Your task to perform on an android device: Open the stopwatch Image 0: 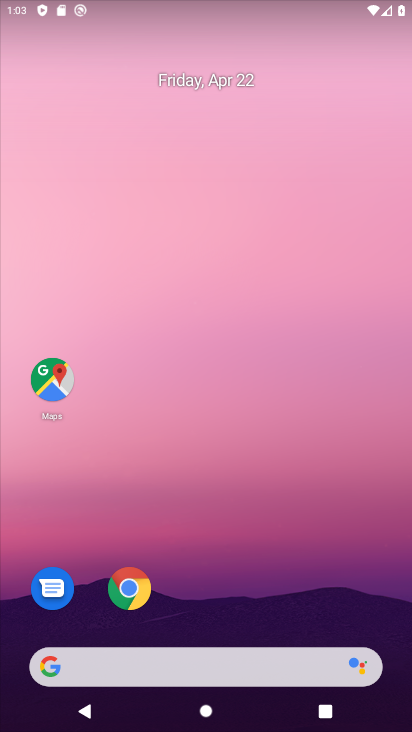
Step 0: drag from (99, 139) to (90, 17)
Your task to perform on an android device: Open the stopwatch Image 1: 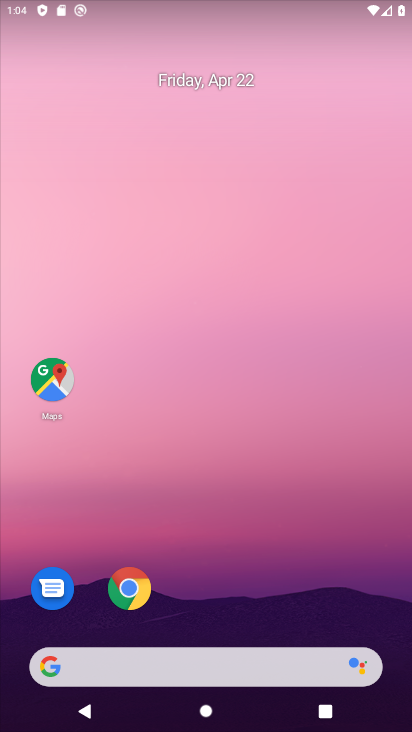
Step 1: drag from (251, 435) to (226, 53)
Your task to perform on an android device: Open the stopwatch Image 2: 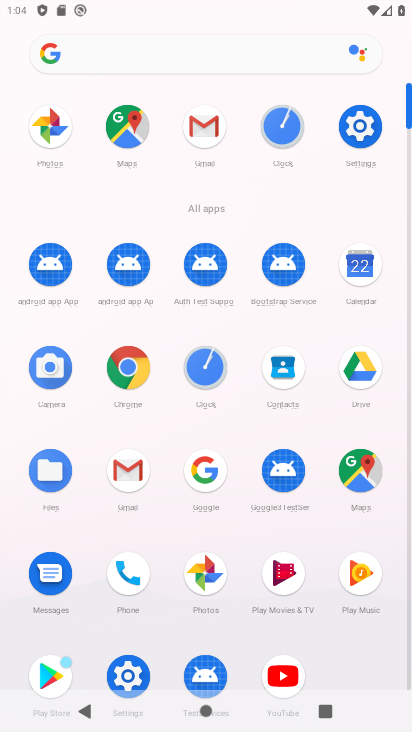
Step 2: click (197, 373)
Your task to perform on an android device: Open the stopwatch Image 3: 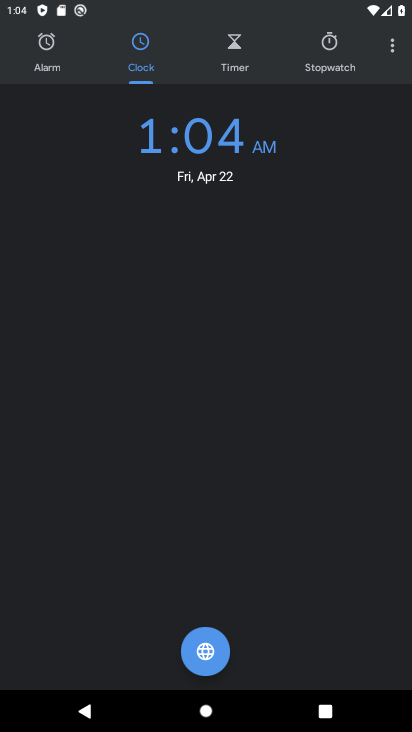
Step 3: click (334, 69)
Your task to perform on an android device: Open the stopwatch Image 4: 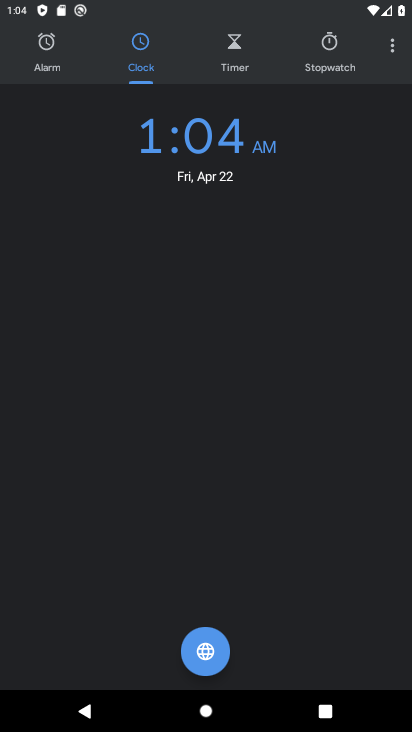
Step 4: click (323, 52)
Your task to perform on an android device: Open the stopwatch Image 5: 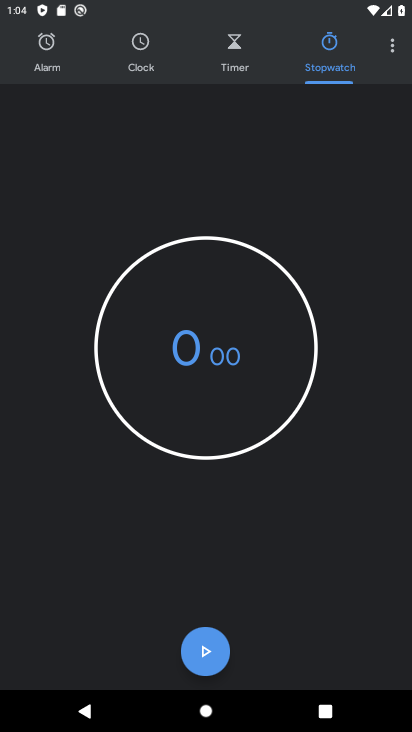
Step 5: click (217, 659)
Your task to perform on an android device: Open the stopwatch Image 6: 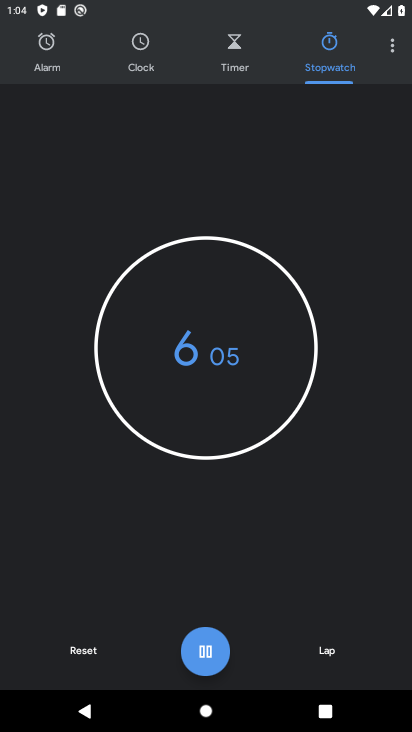
Step 6: click (208, 663)
Your task to perform on an android device: Open the stopwatch Image 7: 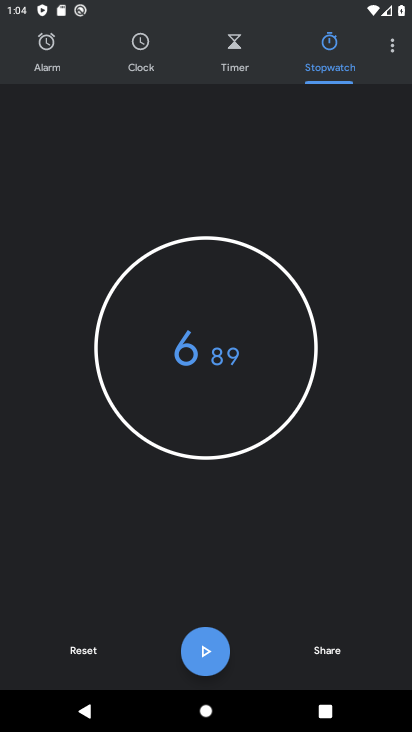
Step 7: task complete